Your task to perform on an android device: Search for Mexican restaurants on Maps Image 0: 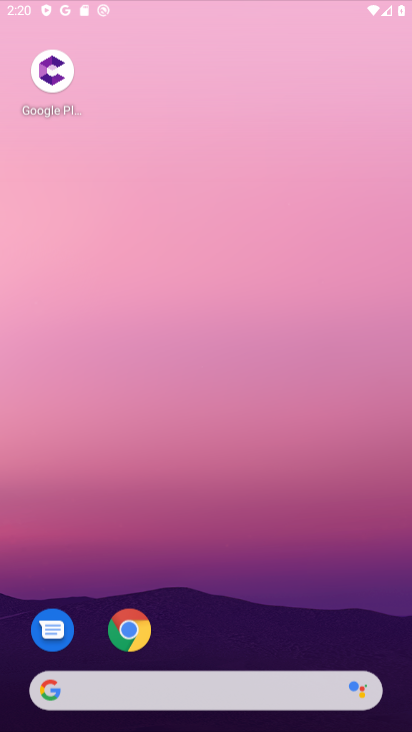
Step 0: click (163, 378)
Your task to perform on an android device: Search for Mexican restaurants on Maps Image 1: 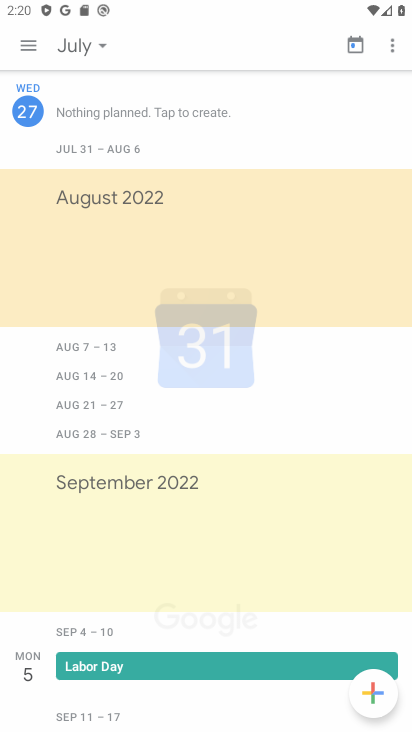
Step 1: task complete